Your task to perform on an android device: Search for vegetarian restaurants on Maps Image 0: 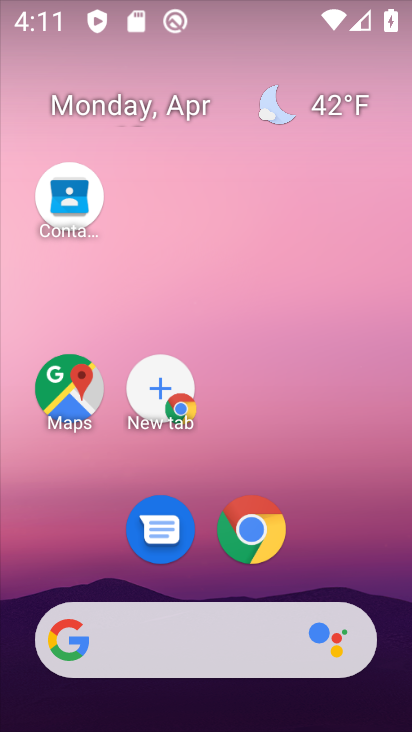
Step 0: click (91, 392)
Your task to perform on an android device: Search for vegetarian restaurants on Maps Image 1: 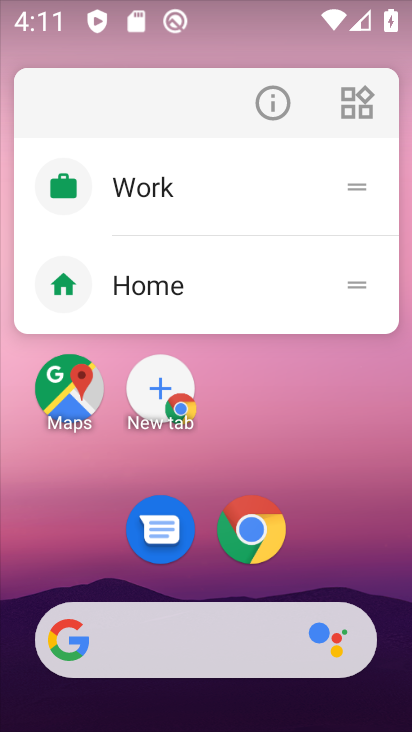
Step 1: click (62, 372)
Your task to perform on an android device: Search for vegetarian restaurants on Maps Image 2: 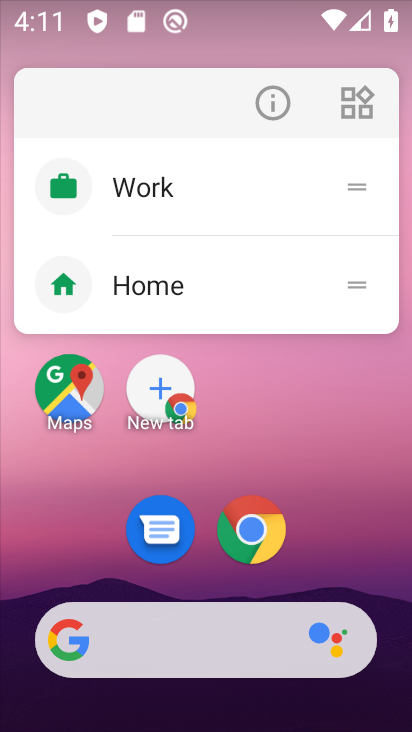
Step 2: click (66, 390)
Your task to perform on an android device: Search for vegetarian restaurants on Maps Image 3: 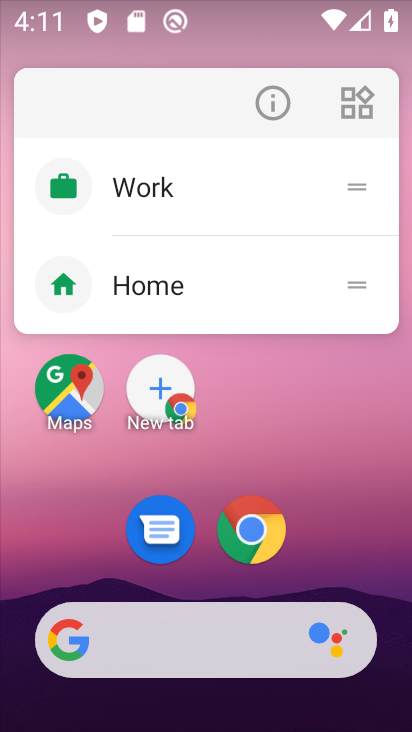
Step 3: click (66, 391)
Your task to perform on an android device: Search for vegetarian restaurants on Maps Image 4: 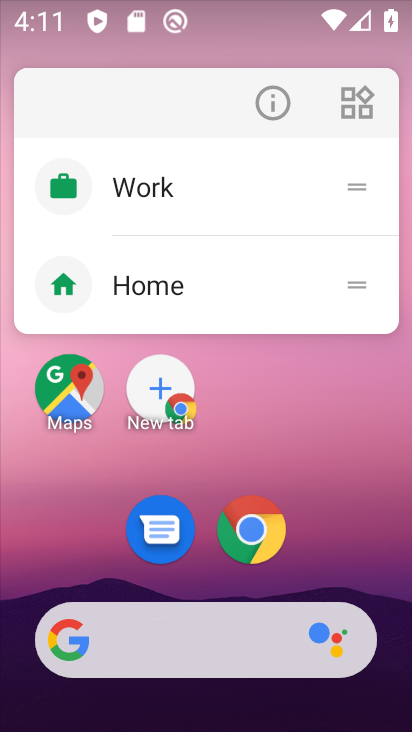
Step 4: click (104, 396)
Your task to perform on an android device: Search for vegetarian restaurants on Maps Image 5: 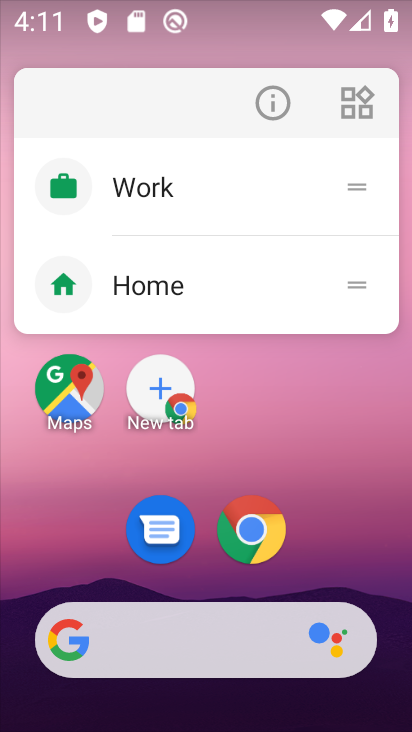
Step 5: click (30, 418)
Your task to perform on an android device: Search for vegetarian restaurants on Maps Image 6: 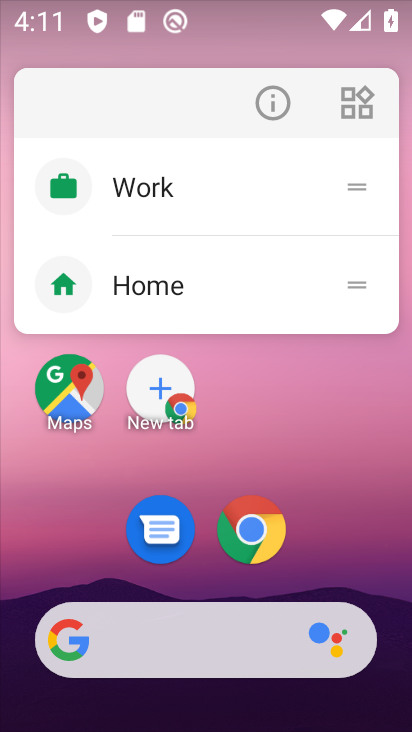
Step 6: click (57, 382)
Your task to perform on an android device: Search for vegetarian restaurants on Maps Image 7: 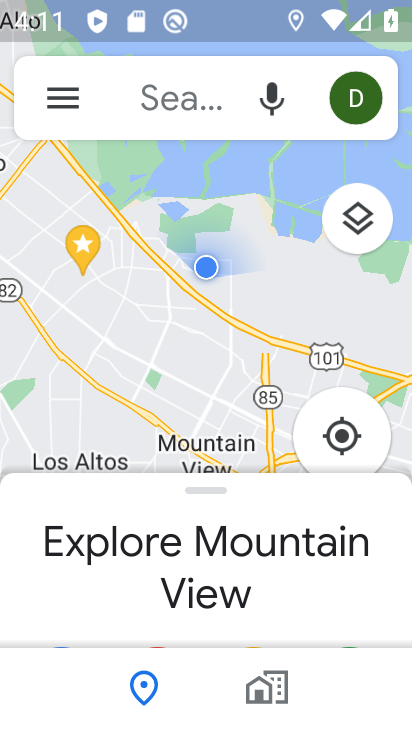
Step 7: click (145, 98)
Your task to perform on an android device: Search for vegetarian restaurants on Maps Image 8: 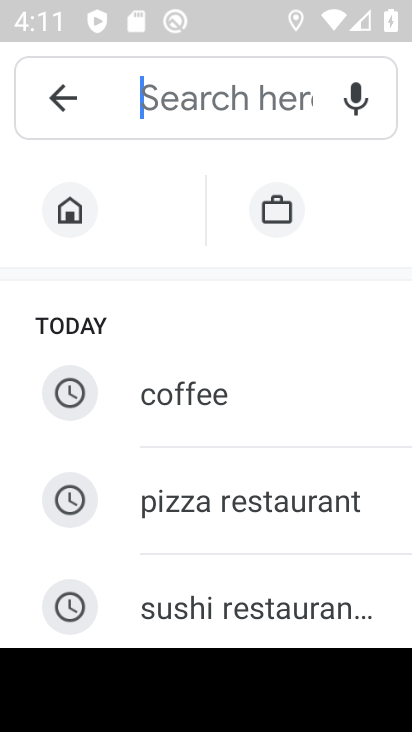
Step 8: drag from (167, 597) to (275, 52)
Your task to perform on an android device: Search for vegetarian restaurants on Maps Image 9: 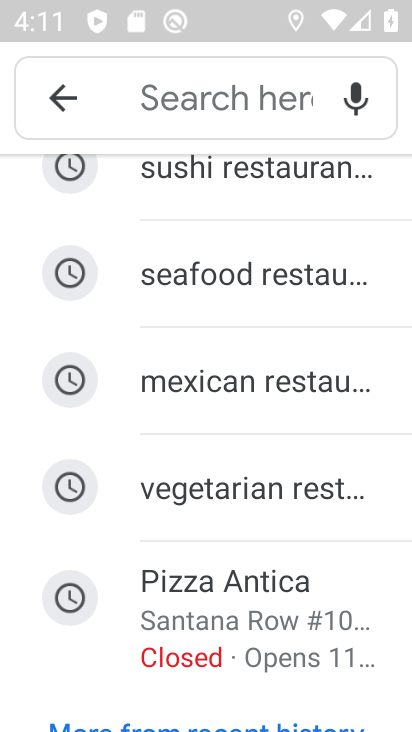
Step 9: click (187, 488)
Your task to perform on an android device: Search for vegetarian restaurants on Maps Image 10: 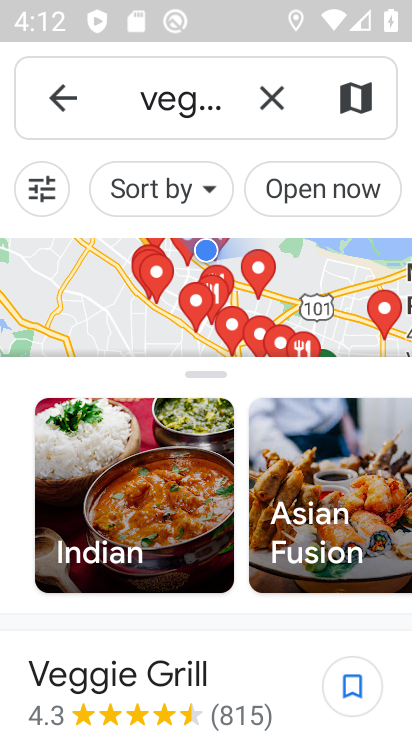
Step 10: task complete